Your task to perform on an android device: move a message to another label in the gmail app Image 0: 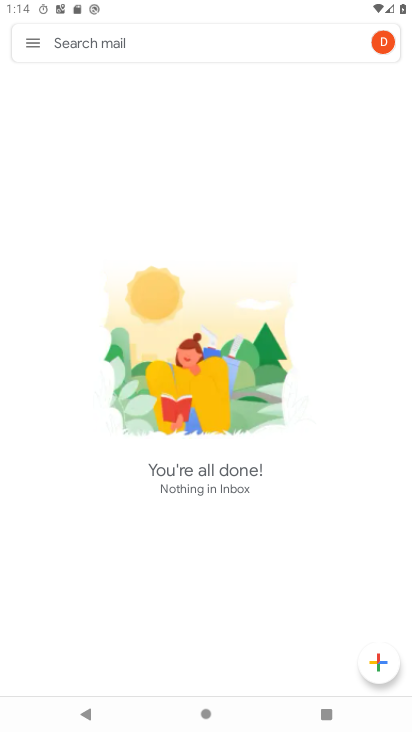
Step 0: drag from (385, 710) to (351, 193)
Your task to perform on an android device: move a message to another label in the gmail app Image 1: 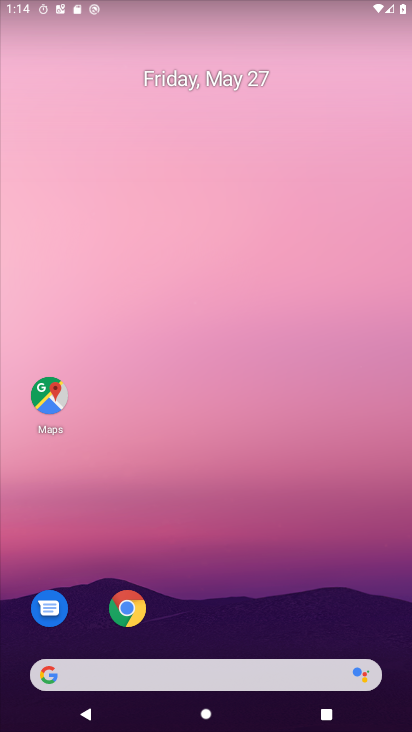
Step 1: click (124, 461)
Your task to perform on an android device: move a message to another label in the gmail app Image 2: 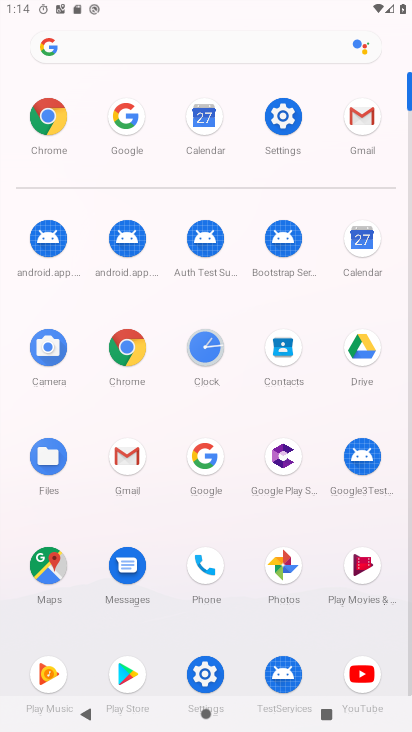
Step 2: click (29, 45)
Your task to perform on an android device: move a message to another label in the gmail app Image 3: 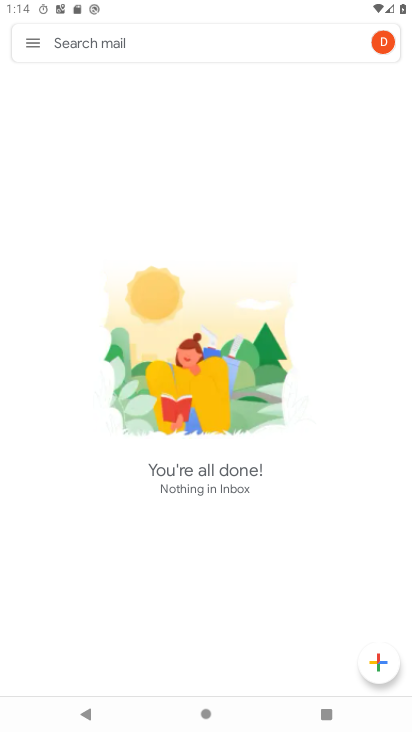
Step 3: click (66, 84)
Your task to perform on an android device: move a message to another label in the gmail app Image 4: 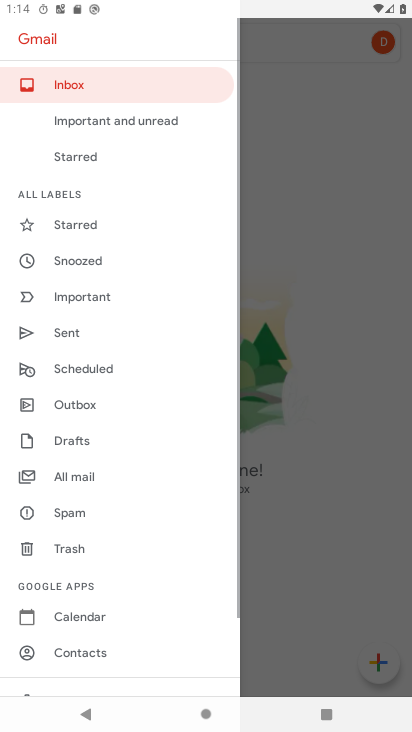
Step 4: task complete